Your task to perform on an android device: Go to settings Image 0: 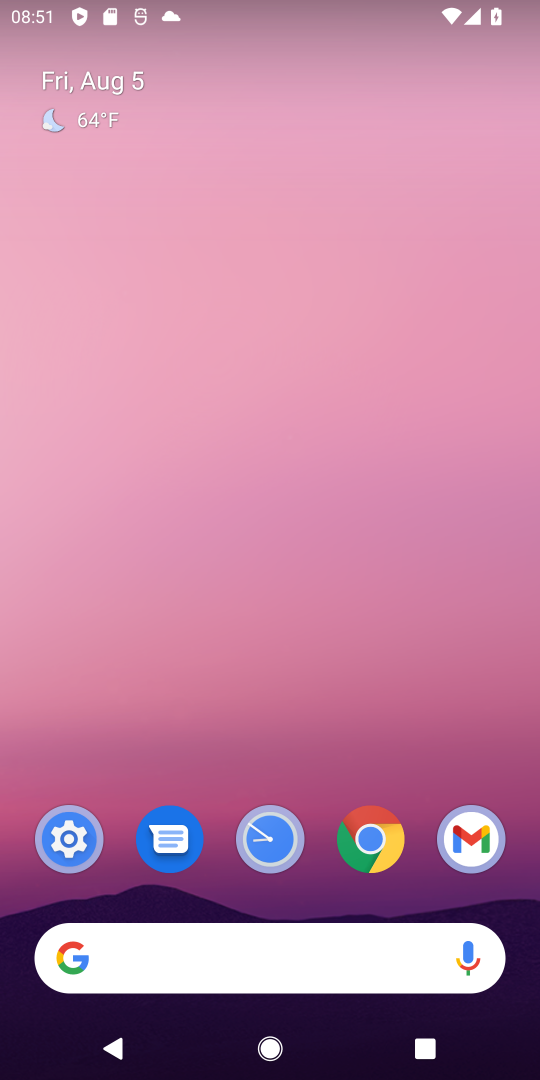
Step 0: drag from (317, 905) to (291, 211)
Your task to perform on an android device: Go to settings Image 1: 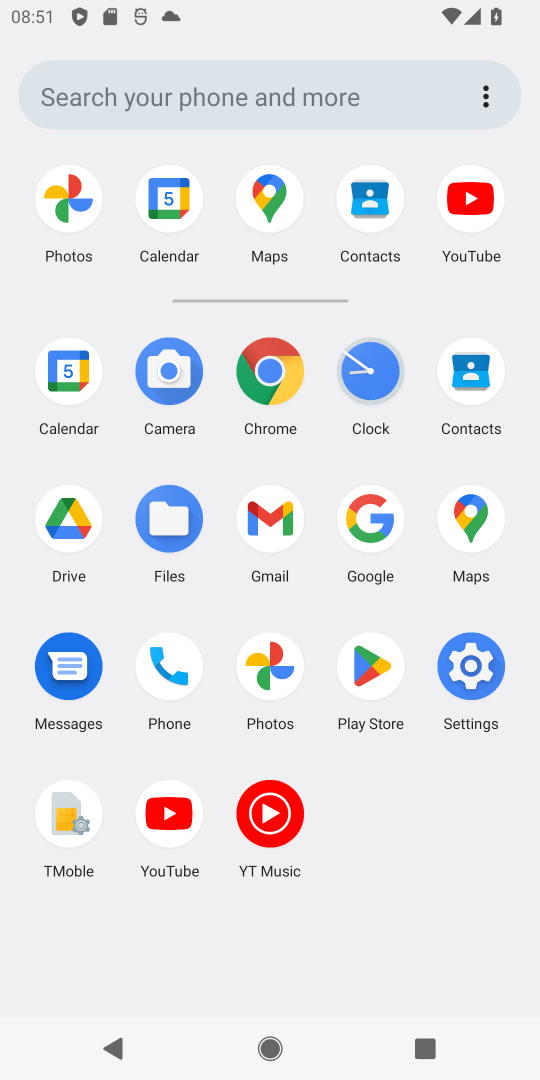
Step 1: click (467, 667)
Your task to perform on an android device: Go to settings Image 2: 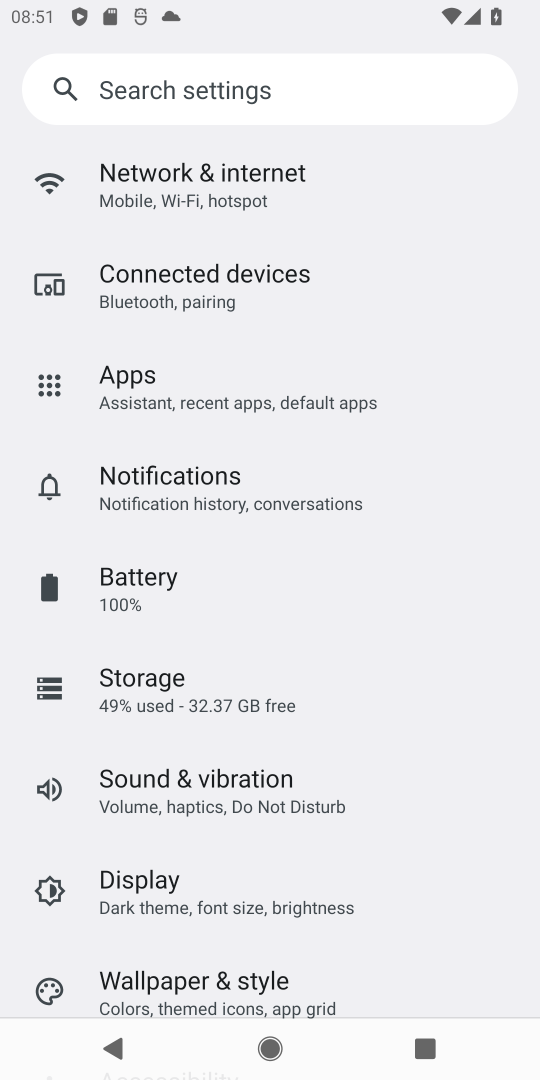
Step 2: task complete